Your task to perform on an android device: turn off javascript in the chrome app Image 0: 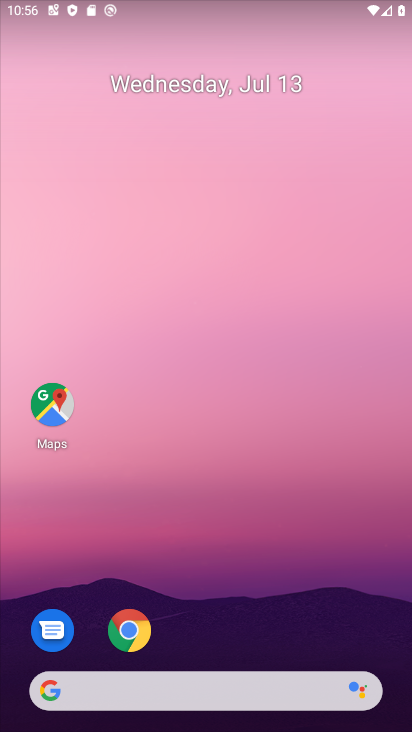
Step 0: drag from (226, 615) to (149, 114)
Your task to perform on an android device: turn off javascript in the chrome app Image 1: 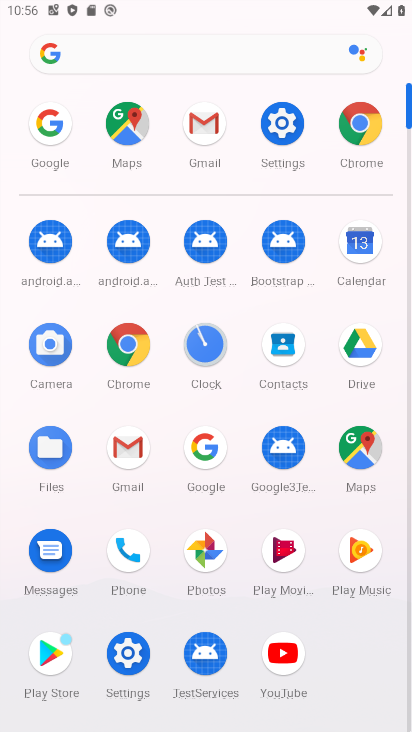
Step 1: click (370, 117)
Your task to perform on an android device: turn off javascript in the chrome app Image 2: 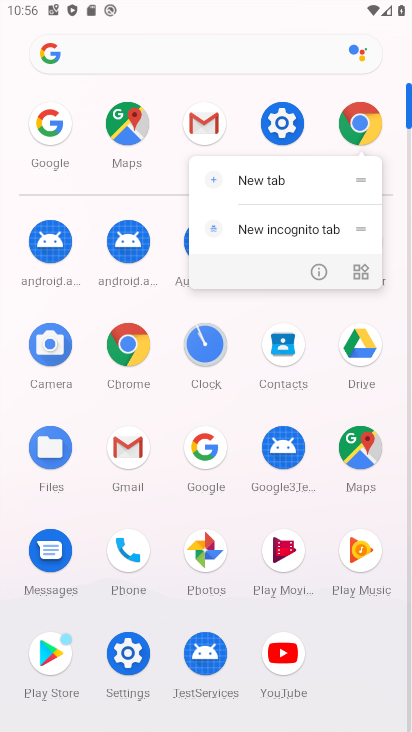
Step 2: click (365, 117)
Your task to perform on an android device: turn off javascript in the chrome app Image 3: 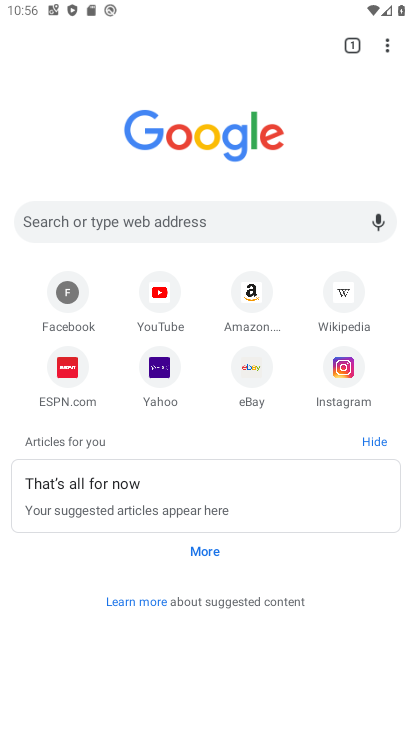
Step 3: drag from (385, 47) to (231, 380)
Your task to perform on an android device: turn off javascript in the chrome app Image 4: 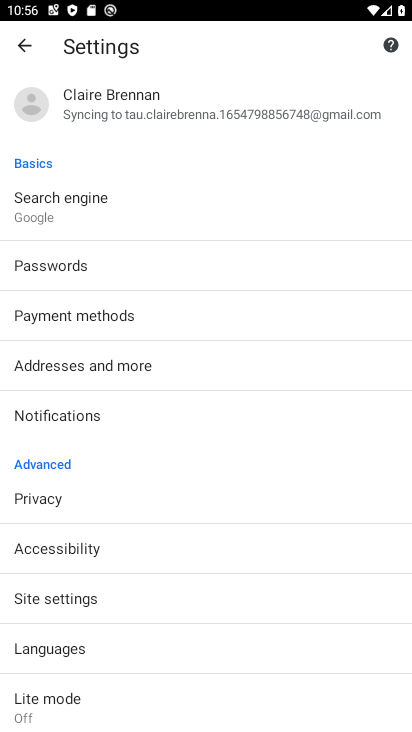
Step 4: drag from (156, 674) to (211, 415)
Your task to perform on an android device: turn off javascript in the chrome app Image 5: 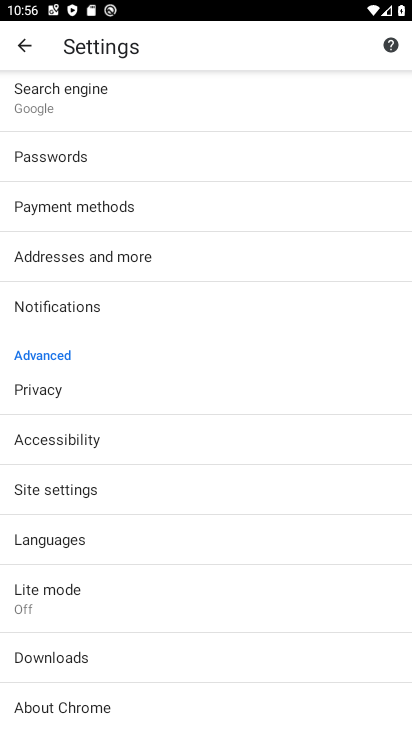
Step 5: click (63, 487)
Your task to perform on an android device: turn off javascript in the chrome app Image 6: 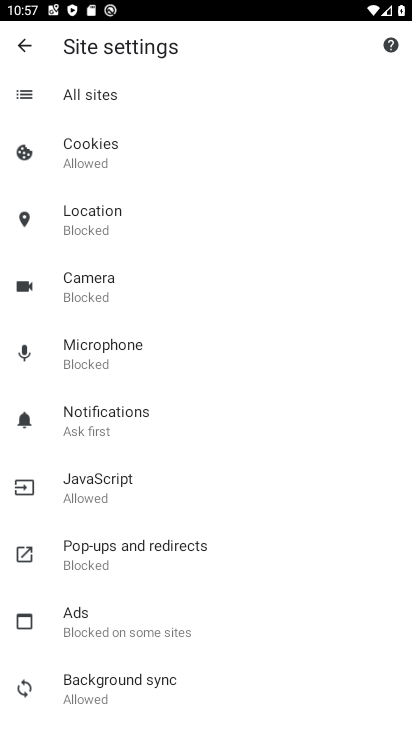
Step 6: click (61, 496)
Your task to perform on an android device: turn off javascript in the chrome app Image 7: 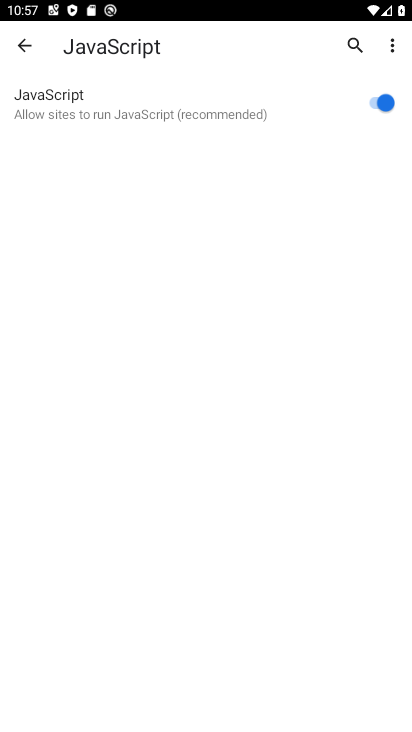
Step 7: click (383, 97)
Your task to perform on an android device: turn off javascript in the chrome app Image 8: 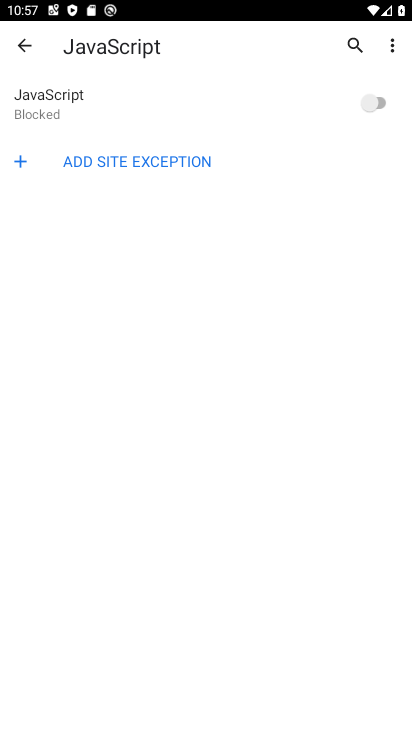
Step 8: task complete